Your task to perform on an android device: Open notification settings Image 0: 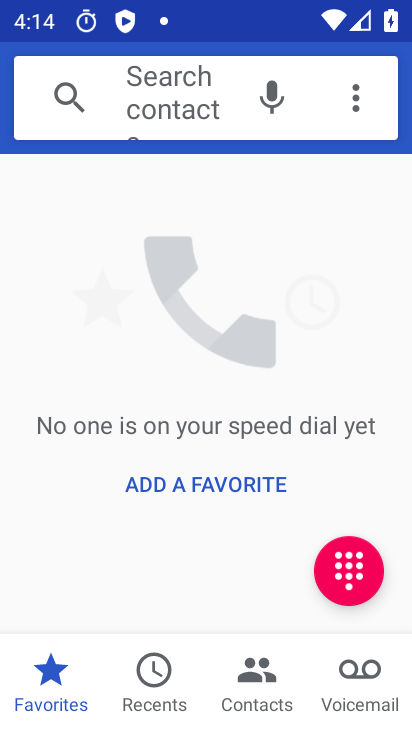
Step 0: press home button
Your task to perform on an android device: Open notification settings Image 1: 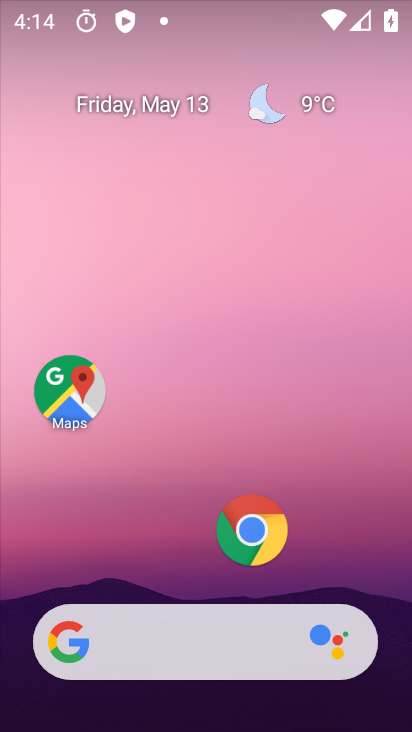
Step 1: drag from (195, 575) to (223, 13)
Your task to perform on an android device: Open notification settings Image 2: 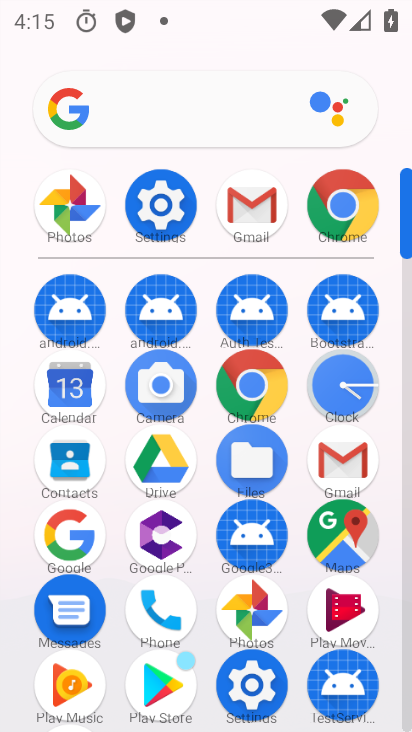
Step 2: click (257, 680)
Your task to perform on an android device: Open notification settings Image 3: 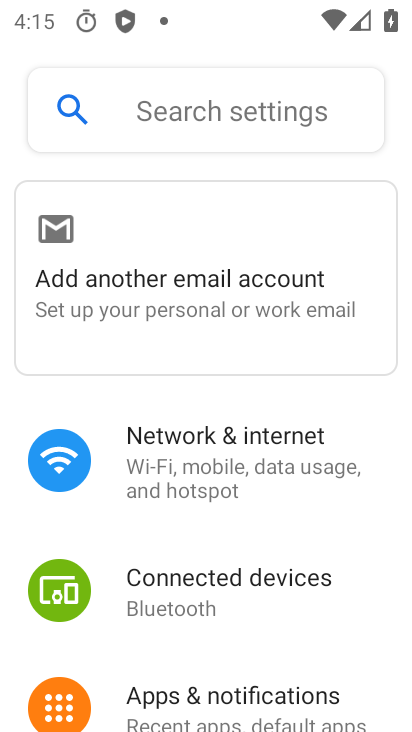
Step 3: click (248, 693)
Your task to perform on an android device: Open notification settings Image 4: 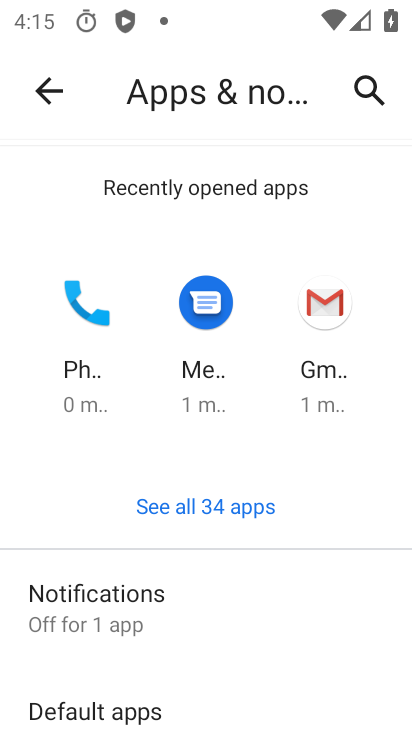
Step 4: click (175, 599)
Your task to perform on an android device: Open notification settings Image 5: 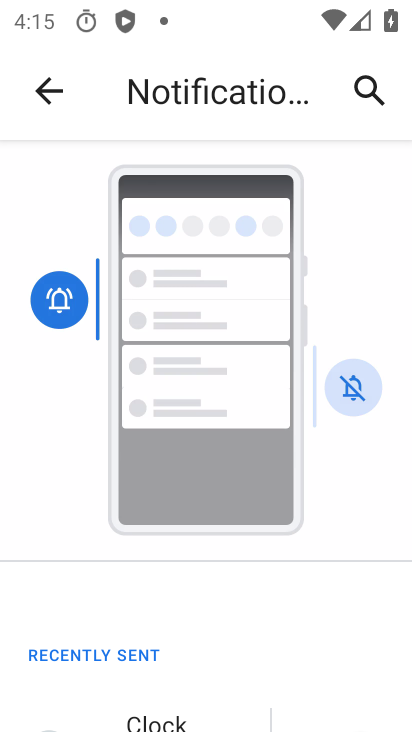
Step 5: drag from (265, 674) to (269, 192)
Your task to perform on an android device: Open notification settings Image 6: 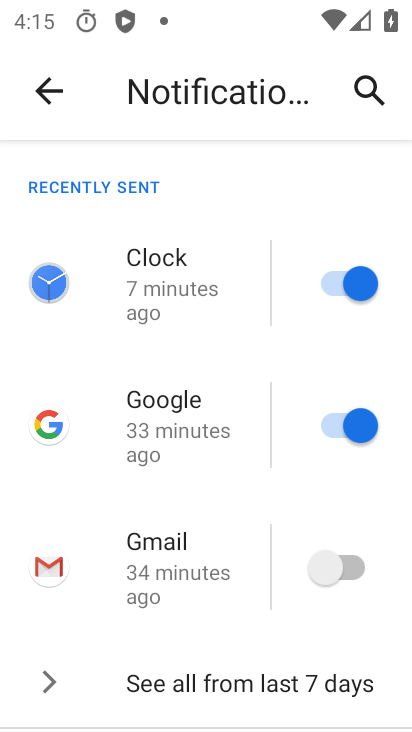
Step 6: drag from (248, 661) to (247, 171)
Your task to perform on an android device: Open notification settings Image 7: 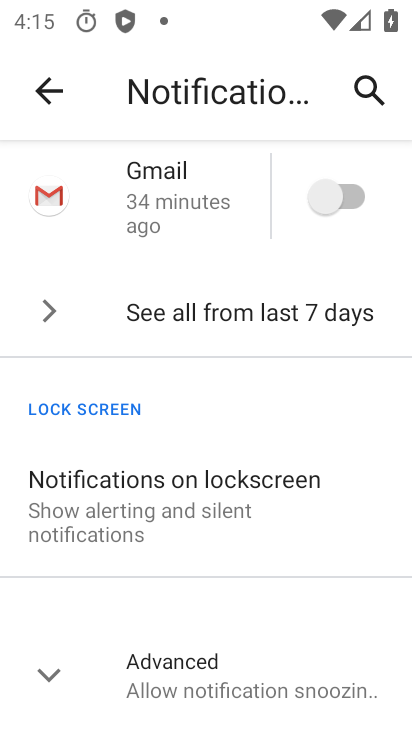
Step 7: click (54, 670)
Your task to perform on an android device: Open notification settings Image 8: 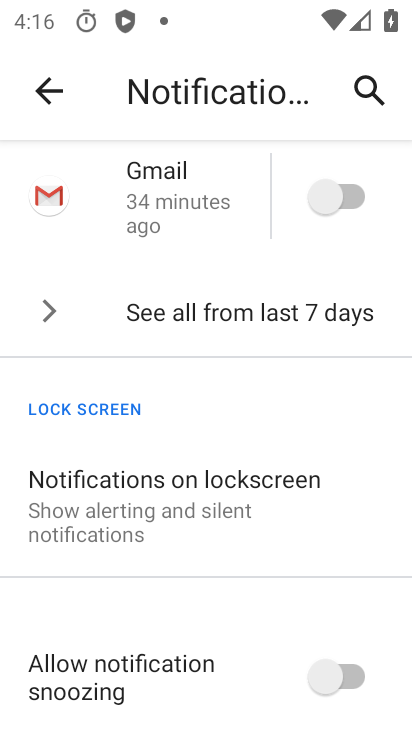
Step 8: task complete